Your task to perform on an android device: Open the map Image 0: 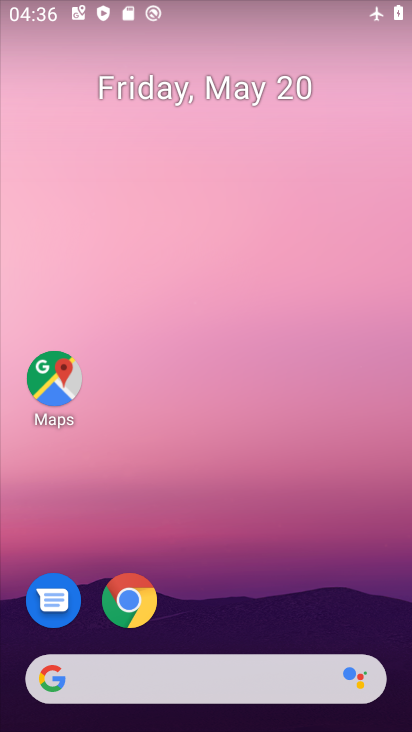
Step 0: drag from (230, 444) to (224, 37)
Your task to perform on an android device: Open the map Image 1: 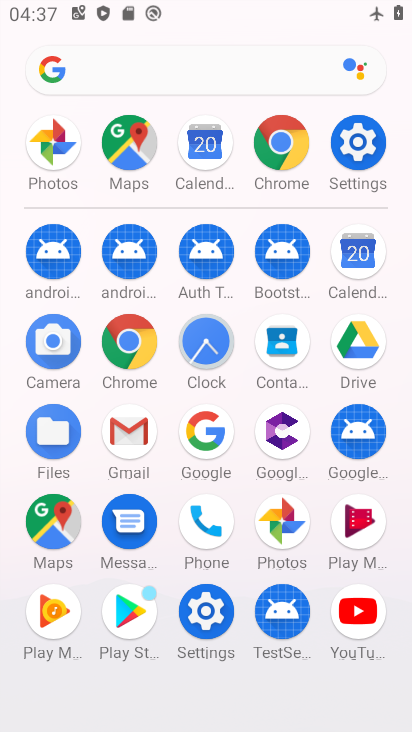
Step 1: click (126, 133)
Your task to perform on an android device: Open the map Image 2: 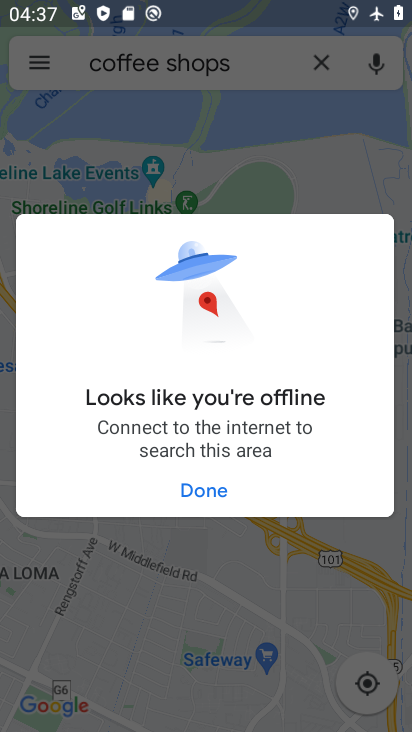
Step 2: click (206, 489)
Your task to perform on an android device: Open the map Image 3: 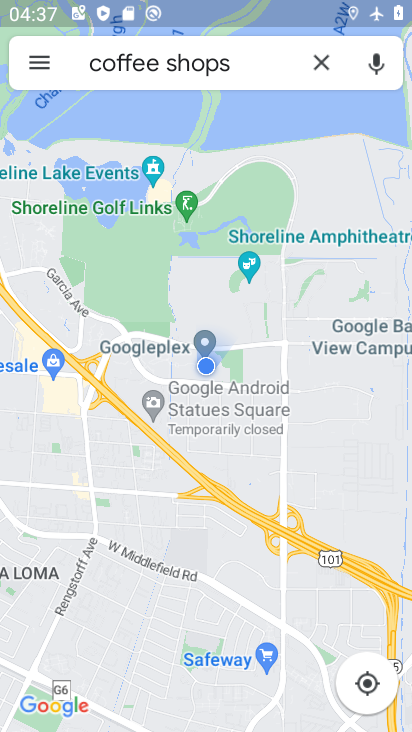
Step 3: click (315, 50)
Your task to perform on an android device: Open the map Image 4: 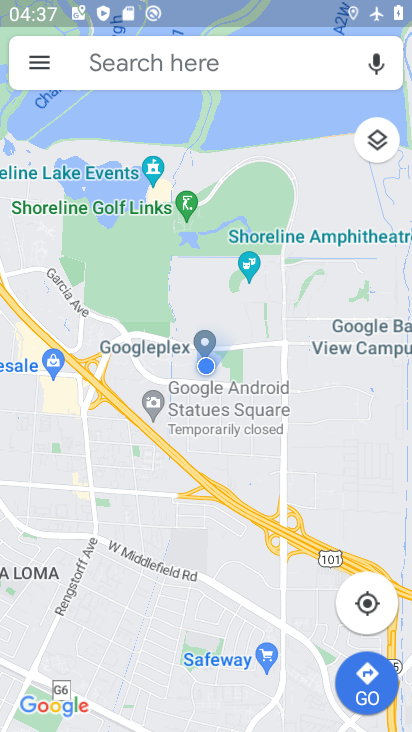
Step 4: task complete